Your task to perform on an android device: turn on airplane mode Image 0: 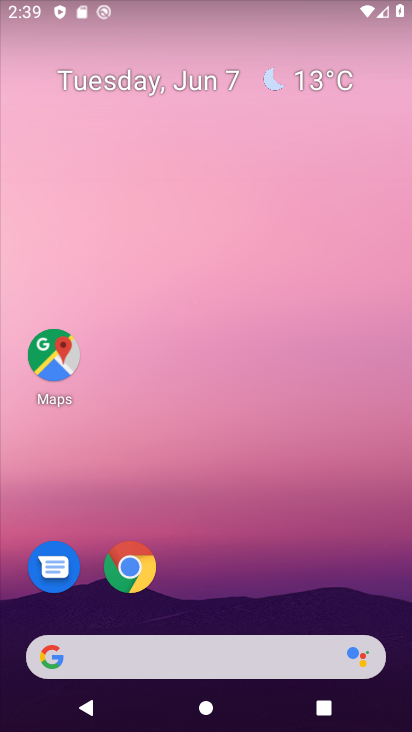
Step 0: drag from (380, 5) to (305, 696)
Your task to perform on an android device: turn on airplane mode Image 1: 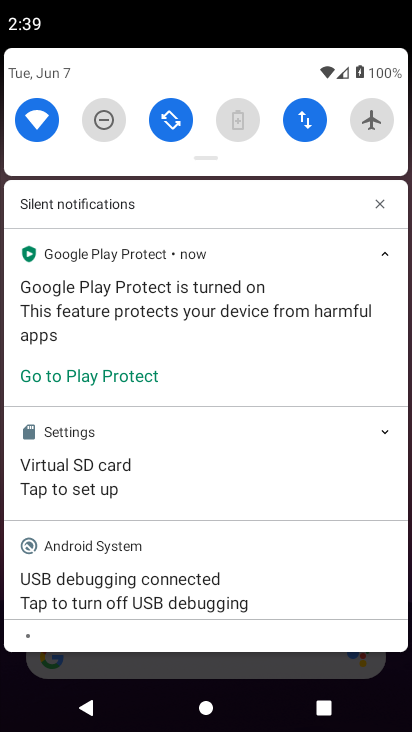
Step 1: click (372, 112)
Your task to perform on an android device: turn on airplane mode Image 2: 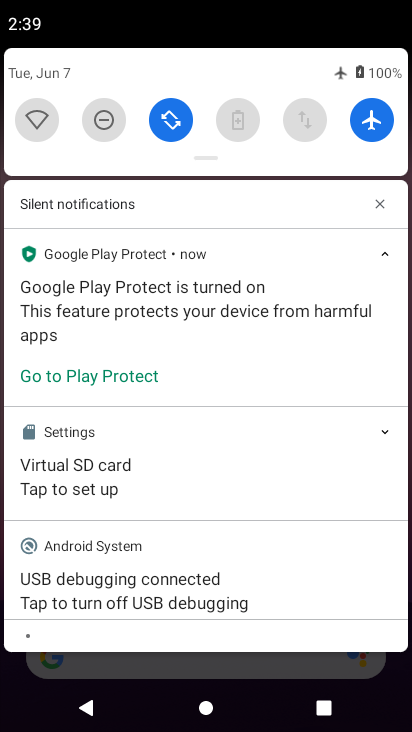
Step 2: task complete